Your task to perform on an android device: turn on showing notifications on the lock screen Image 0: 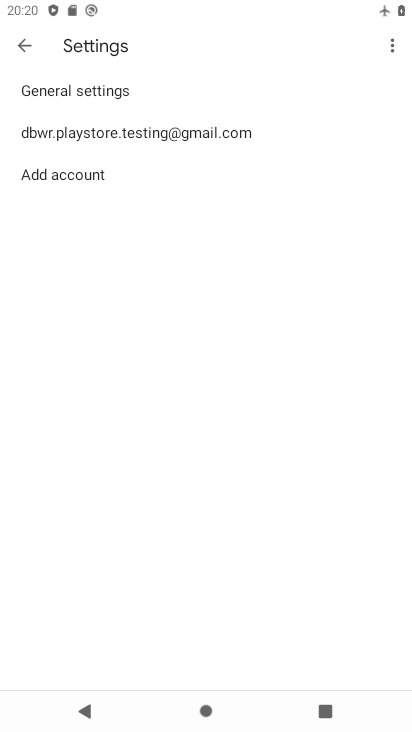
Step 0: press home button
Your task to perform on an android device: turn on showing notifications on the lock screen Image 1: 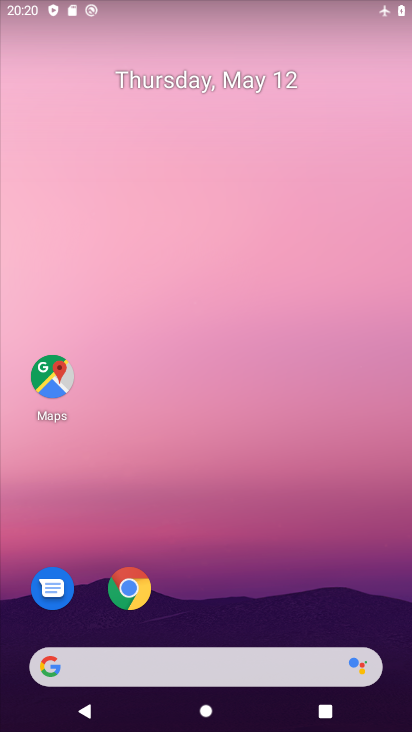
Step 1: drag from (154, 637) to (266, 121)
Your task to perform on an android device: turn on showing notifications on the lock screen Image 2: 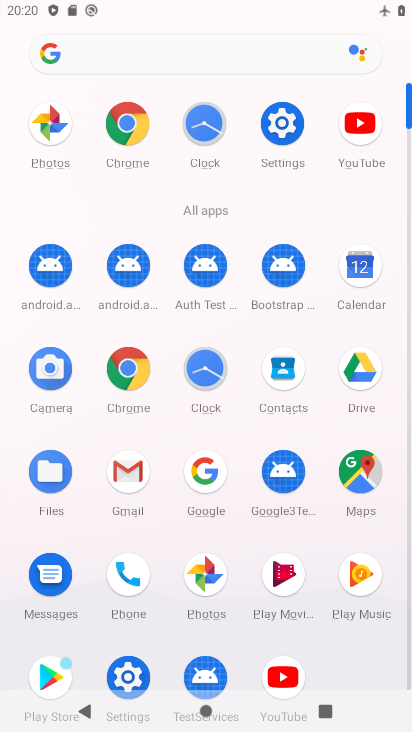
Step 2: click (137, 677)
Your task to perform on an android device: turn on showing notifications on the lock screen Image 3: 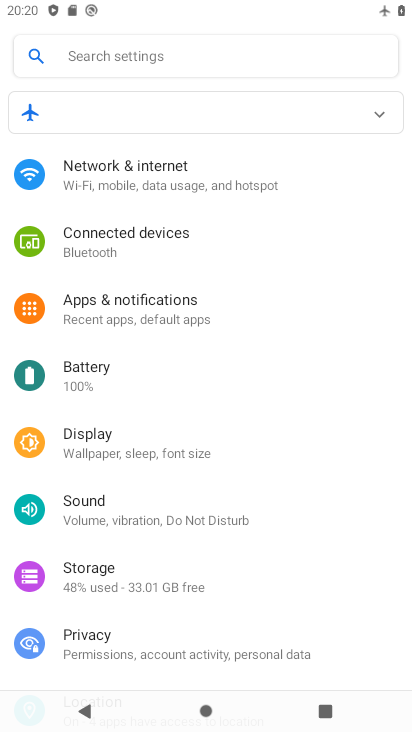
Step 3: click (188, 305)
Your task to perform on an android device: turn on showing notifications on the lock screen Image 4: 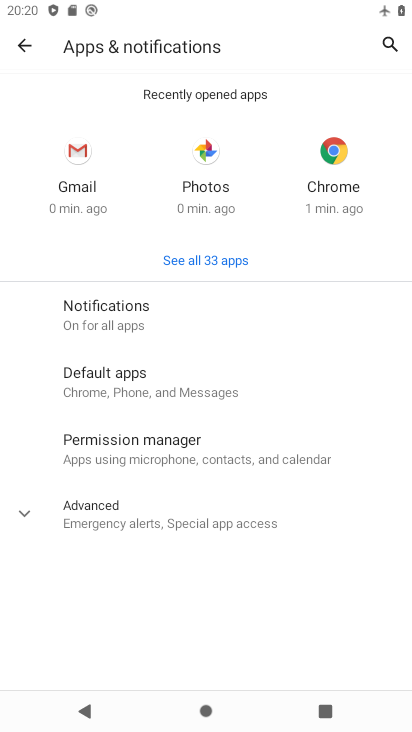
Step 4: click (157, 325)
Your task to perform on an android device: turn on showing notifications on the lock screen Image 5: 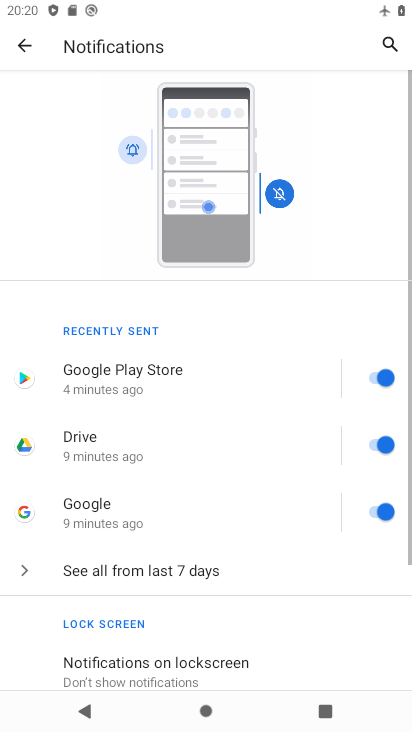
Step 5: drag from (180, 615) to (287, 261)
Your task to perform on an android device: turn on showing notifications on the lock screen Image 6: 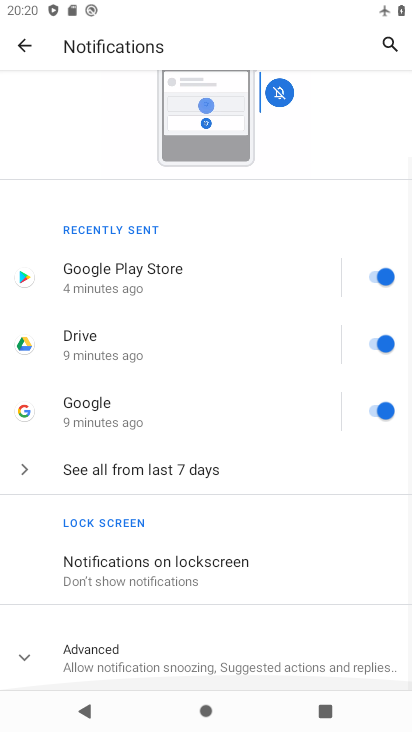
Step 6: click (267, 586)
Your task to perform on an android device: turn on showing notifications on the lock screen Image 7: 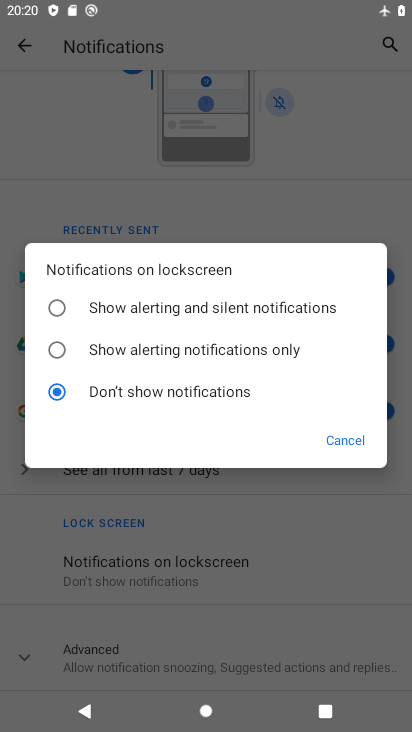
Step 7: click (230, 308)
Your task to perform on an android device: turn on showing notifications on the lock screen Image 8: 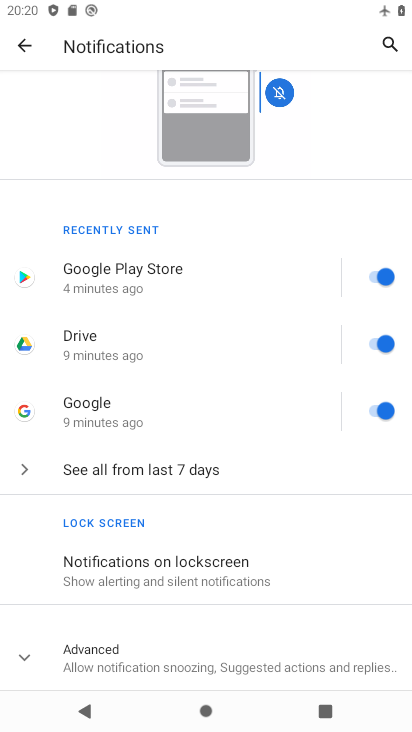
Step 8: task complete